Your task to perform on an android device: turn on the 12-hour format for clock Image 0: 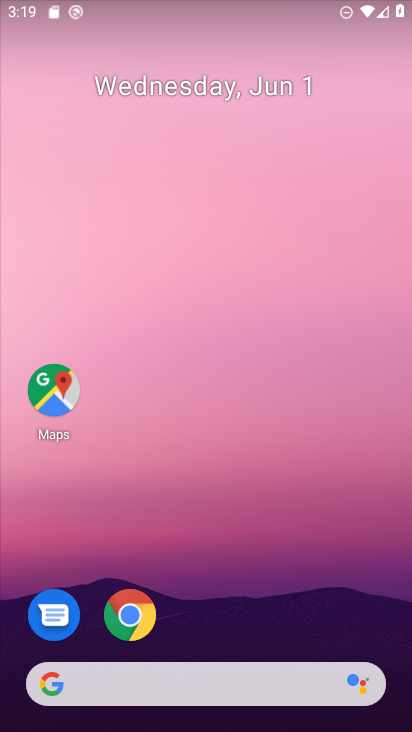
Step 0: press home button
Your task to perform on an android device: turn on the 12-hour format for clock Image 1: 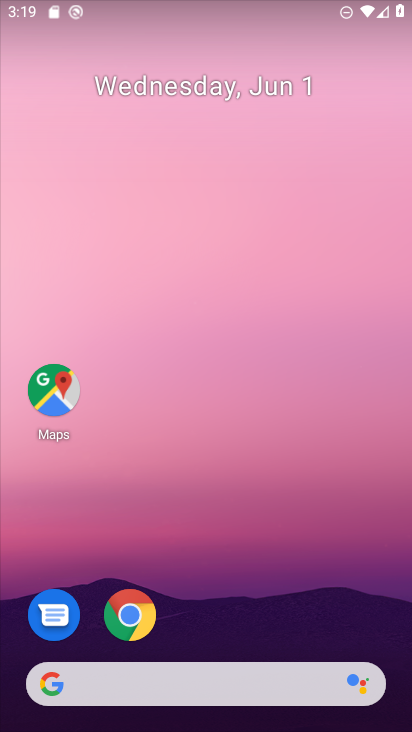
Step 1: drag from (217, 641) to (213, 55)
Your task to perform on an android device: turn on the 12-hour format for clock Image 2: 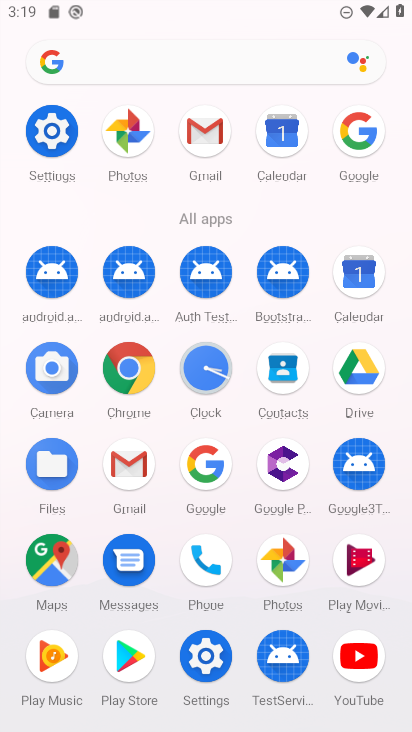
Step 2: click (199, 358)
Your task to perform on an android device: turn on the 12-hour format for clock Image 3: 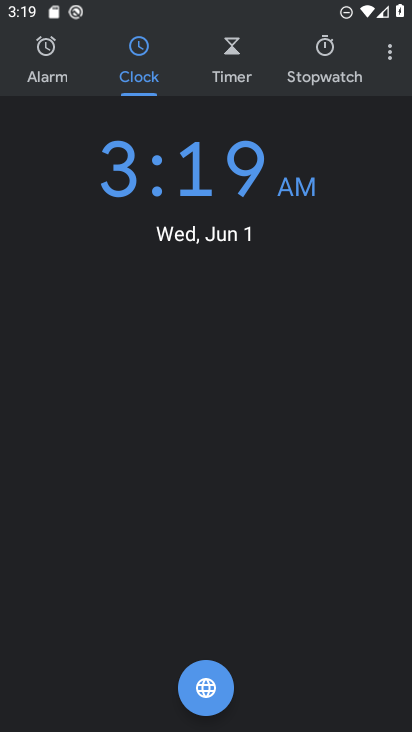
Step 3: click (378, 45)
Your task to perform on an android device: turn on the 12-hour format for clock Image 4: 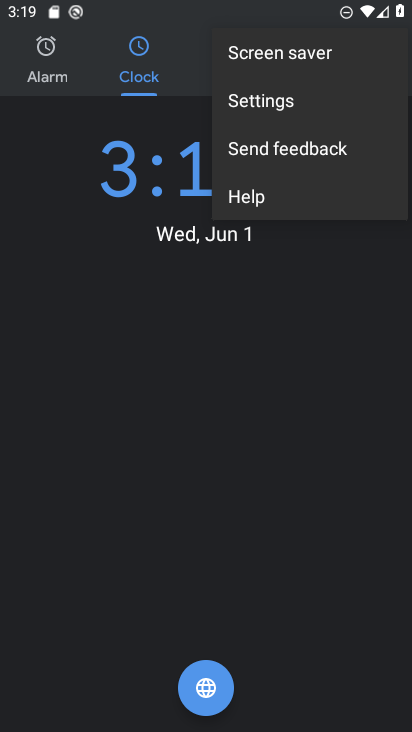
Step 4: click (303, 100)
Your task to perform on an android device: turn on the 12-hour format for clock Image 5: 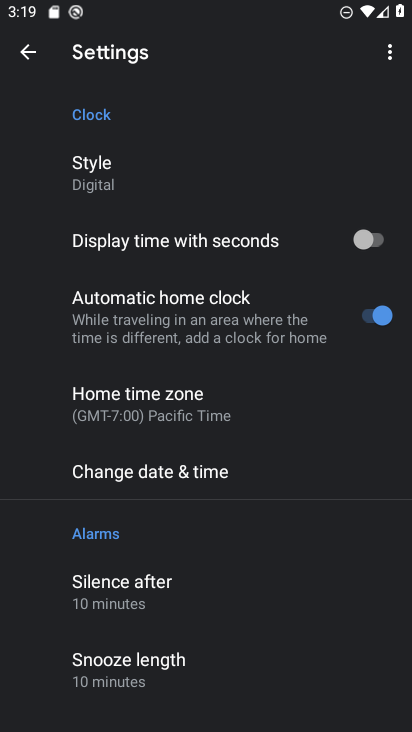
Step 5: click (251, 473)
Your task to perform on an android device: turn on the 12-hour format for clock Image 6: 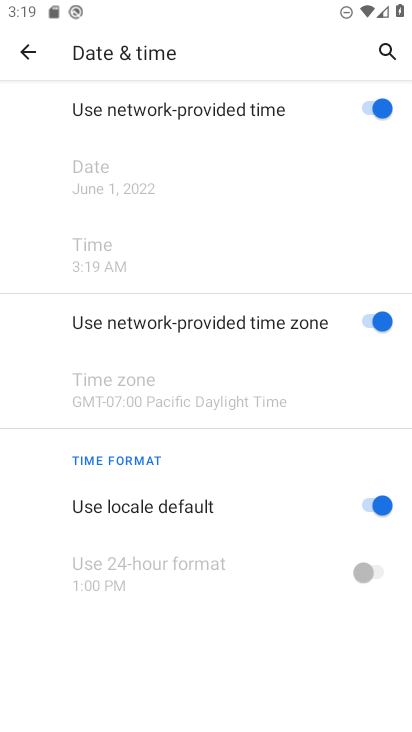
Step 6: task complete